Your task to perform on an android device: turn off notifications in google photos Image 0: 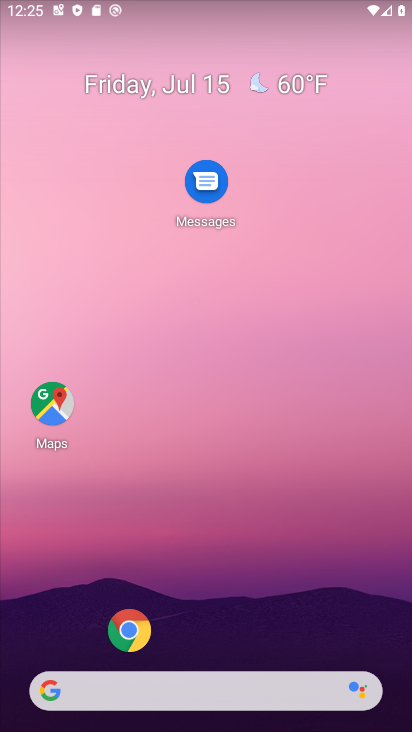
Step 0: drag from (30, 642) to (247, 97)
Your task to perform on an android device: turn off notifications in google photos Image 1: 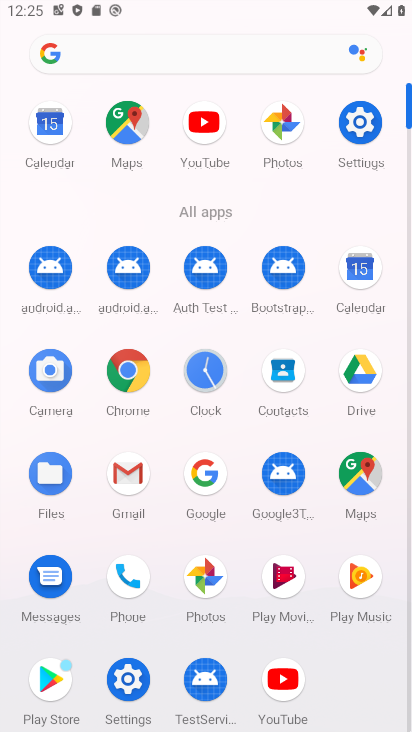
Step 1: click (214, 568)
Your task to perform on an android device: turn off notifications in google photos Image 2: 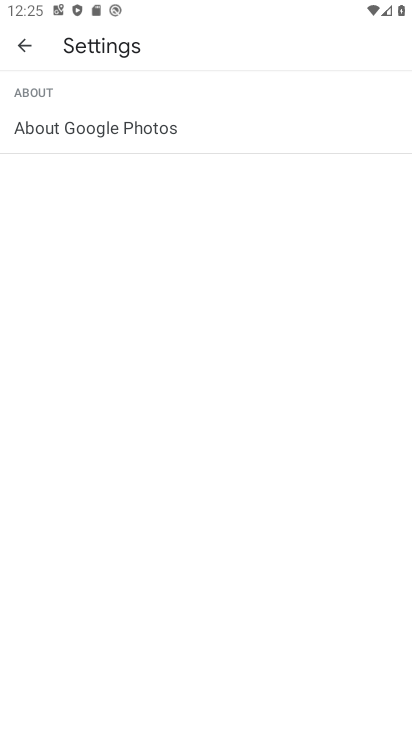
Step 2: click (26, 45)
Your task to perform on an android device: turn off notifications in google photos Image 3: 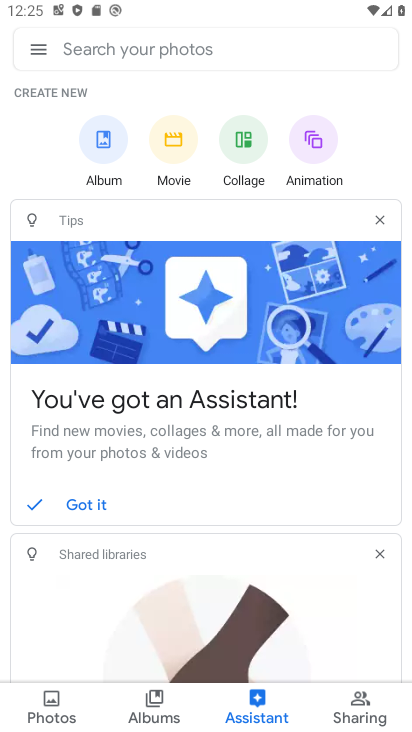
Step 3: click (38, 712)
Your task to perform on an android device: turn off notifications in google photos Image 4: 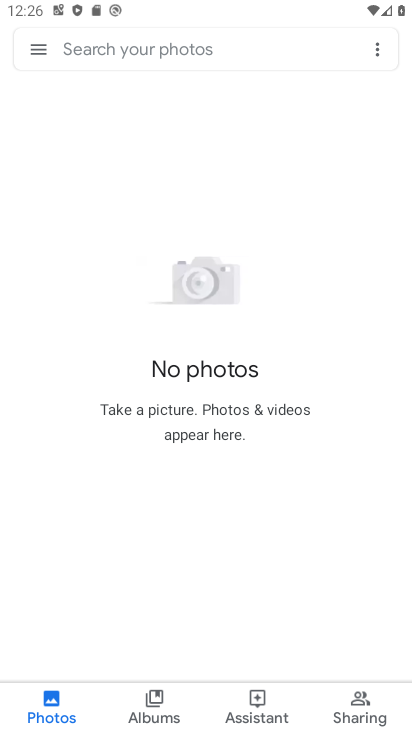
Step 4: click (31, 38)
Your task to perform on an android device: turn off notifications in google photos Image 5: 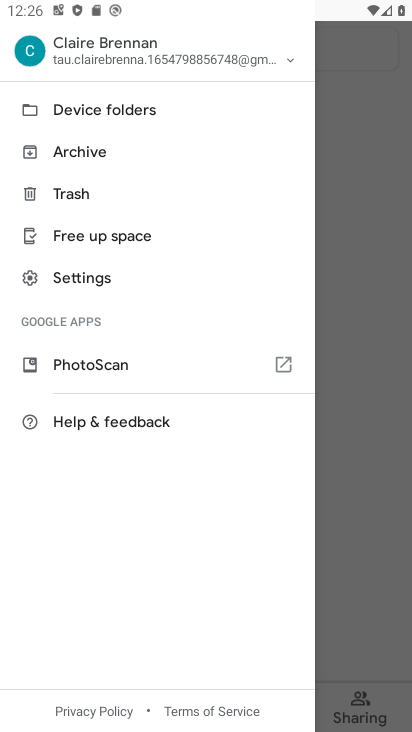
Step 5: click (80, 276)
Your task to perform on an android device: turn off notifications in google photos Image 6: 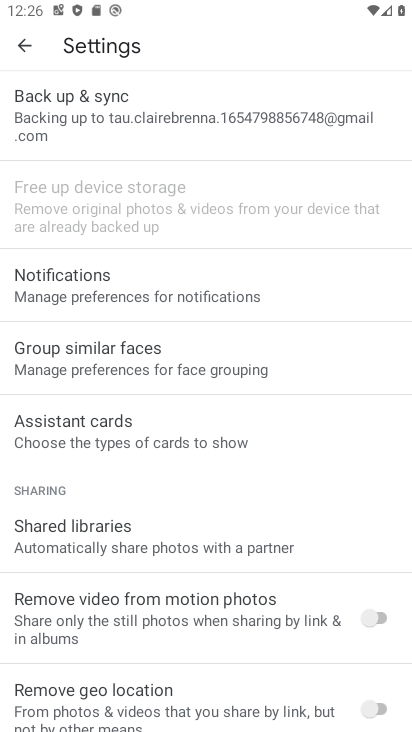
Step 6: click (102, 295)
Your task to perform on an android device: turn off notifications in google photos Image 7: 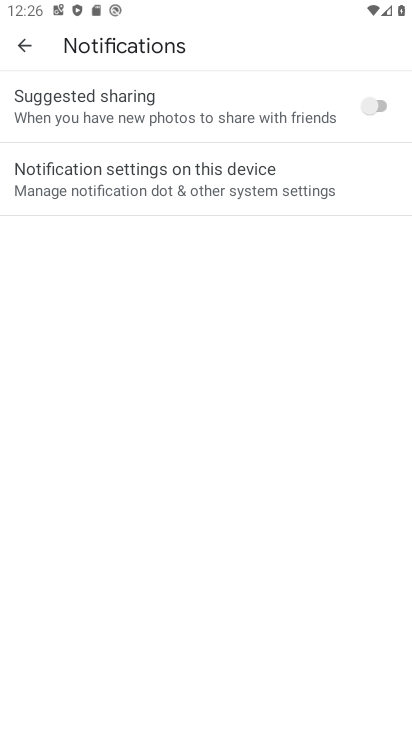
Step 7: click (129, 173)
Your task to perform on an android device: turn off notifications in google photos Image 8: 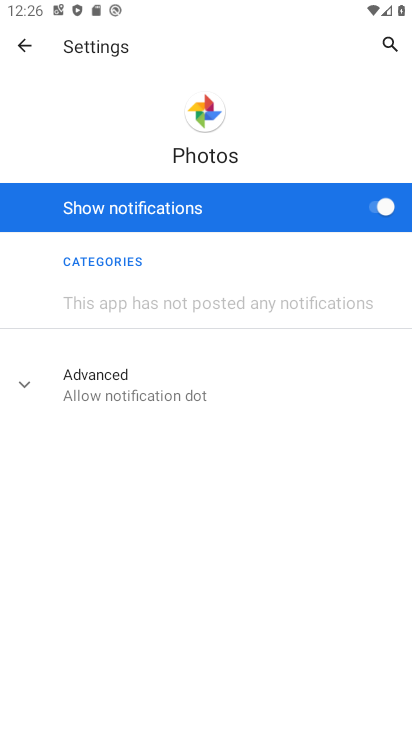
Step 8: click (383, 212)
Your task to perform on an android device: turn off notifications in google photos Image 9: 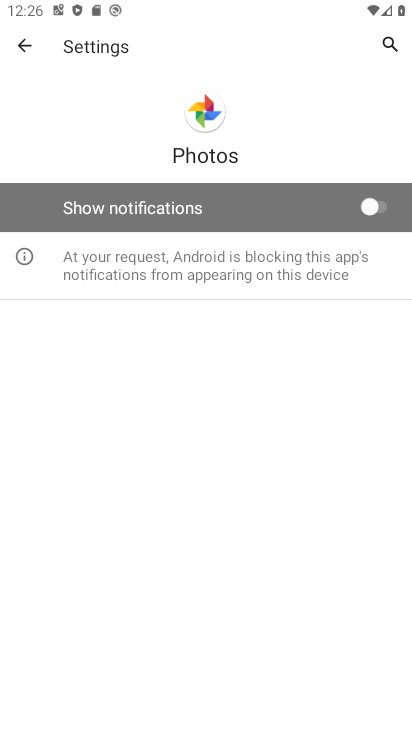
Step 9: task complete